Your task to perform on an android device: Go to Maps Image 0: 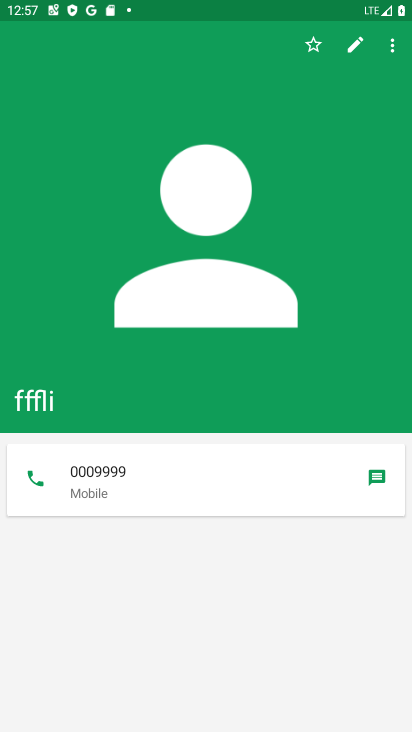
Step 0: press home button
Your task to perform on an android device: Go to Maps Image 1: 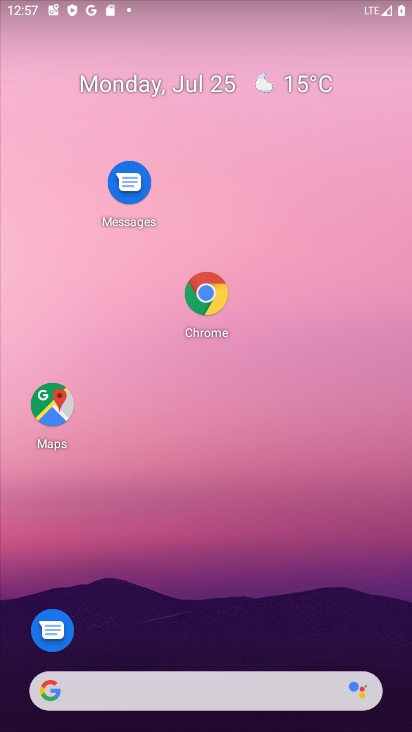
Step 1: drag from (329, 582) to (283, 146)
Your task to perform on an android device: Go to Maps Image 2: 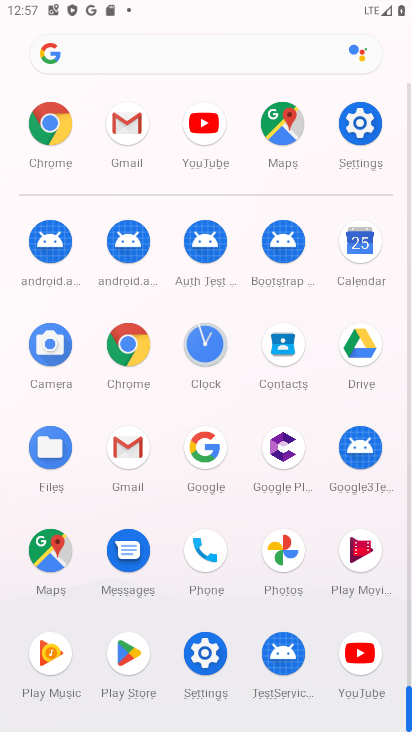
Step 2: click (277, 131)
Your task to perform on an android device: Go to Maps Image 3: 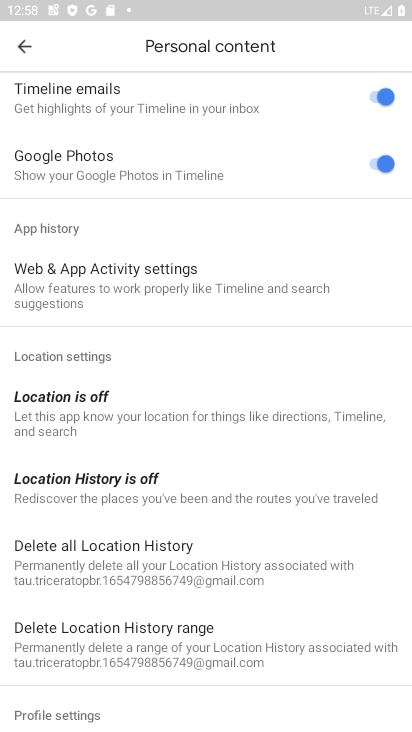
Step 3: click (30, 41)
Your task to perform on an android device: Go to Maps Image 4: 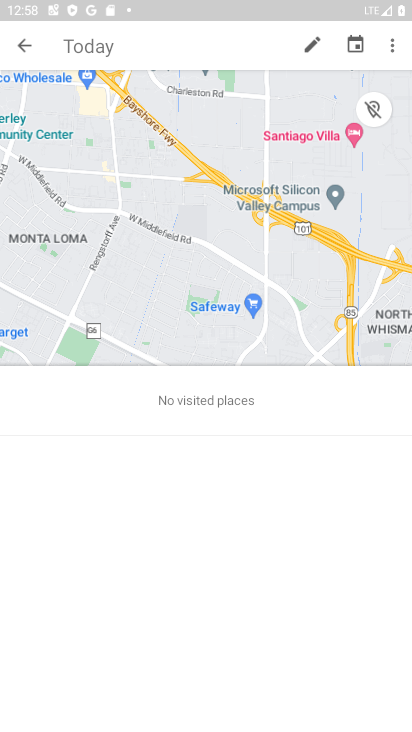
Step 4: click (25, 38)
Your task to perform on an android device: Go to Maps Image 5: 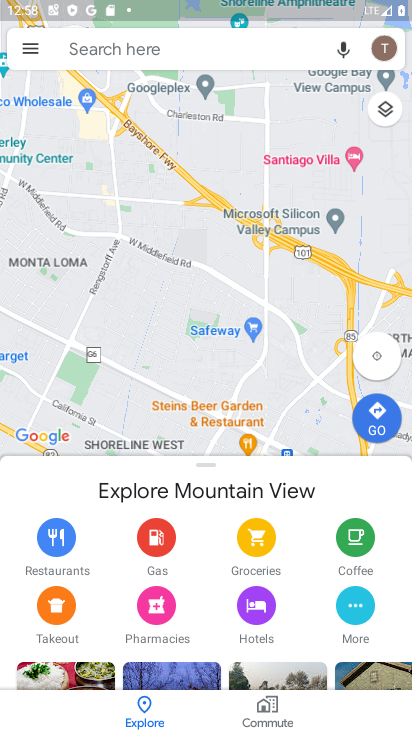
Step 5: task complete